Your task to perform on an android device: turn off location Image 0: 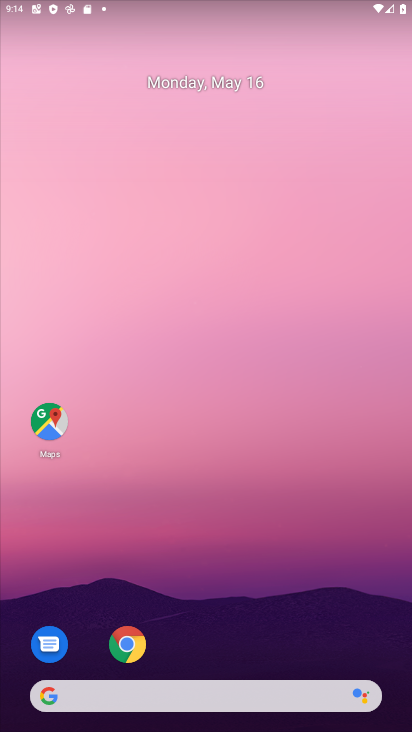
Step 0: drag from (308, 692) to (175, 724)
Your task to perform on an android device: turn off location Image 1: 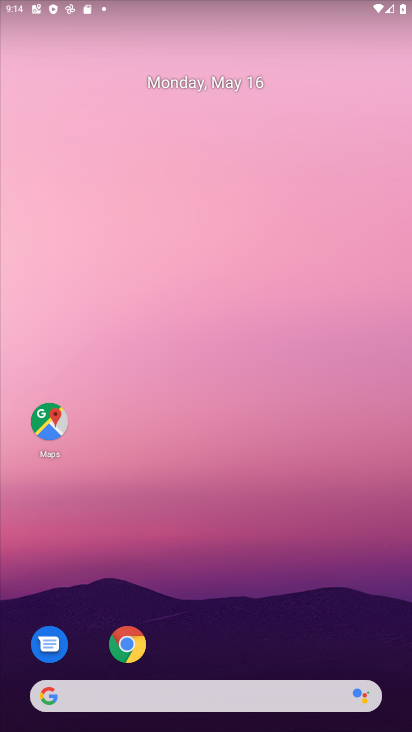
Step 1: drag from (299, 10) to (304, 577)
Your task to perform on an android device: turn off location Image 2: 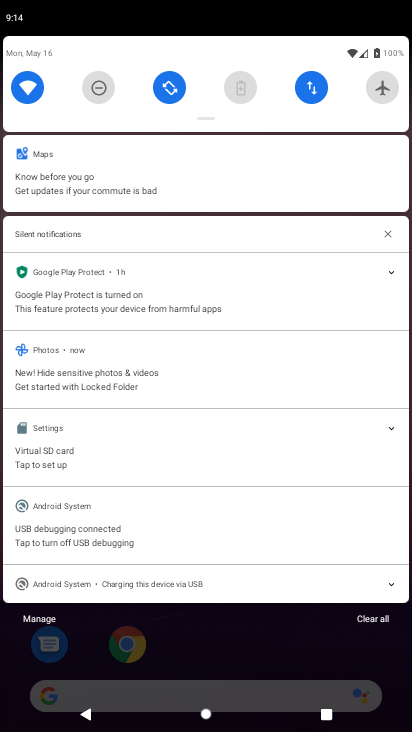
Step 2: press home button
Your task to perform on an android device: turn off location Image 3: 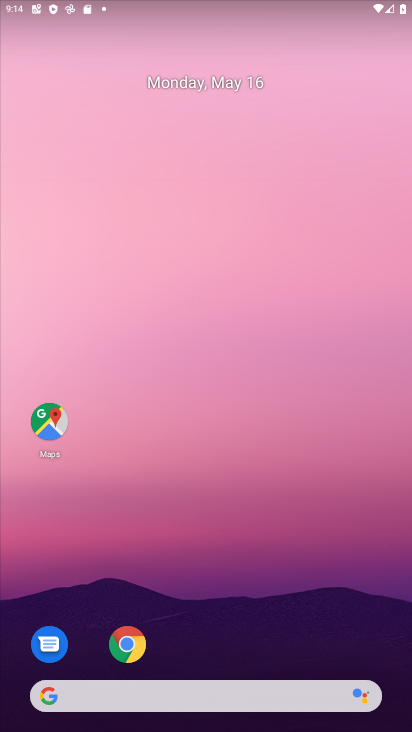
Step 3: drag from (242, 711) to (267, 5)
Your task to perform on an android device: turn off location Image 4: 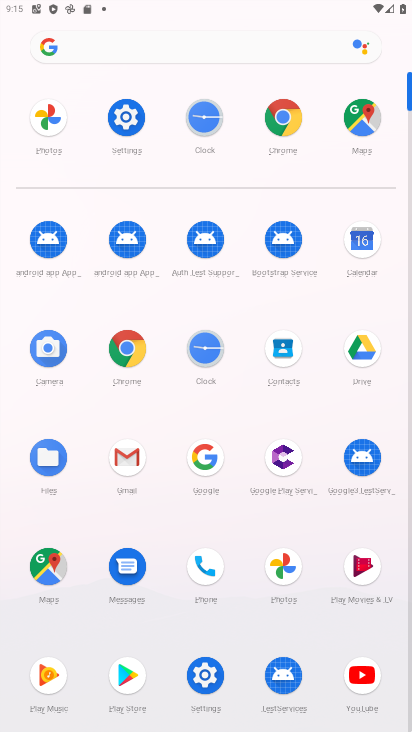
Step 4: click (120, 129)
Your task to perform on an android device: turn off location Image 5: 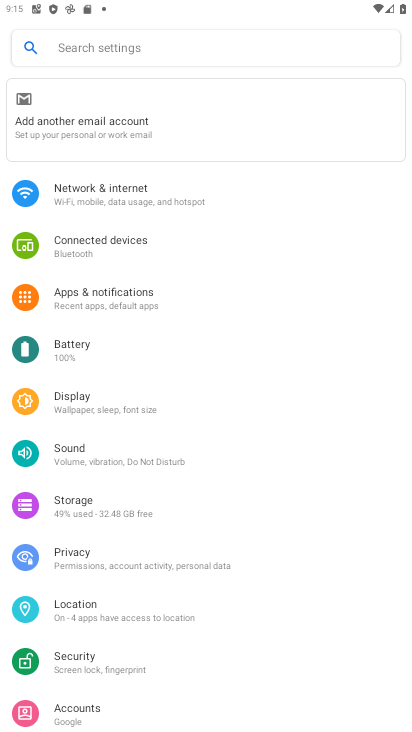
Step 5: click (197, 613)
Your task to perform on an android device: turn off location Image 6: 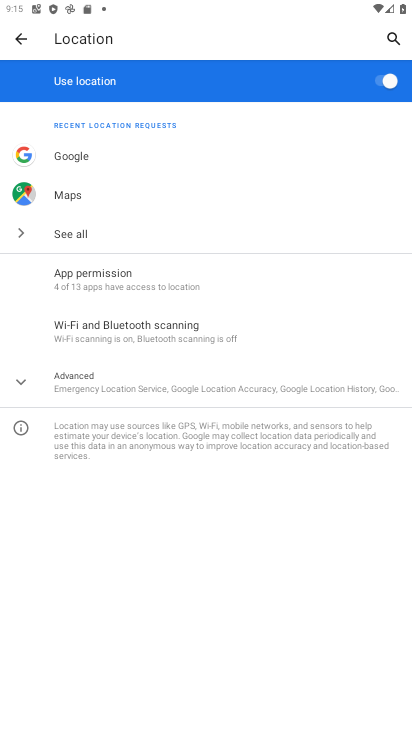
Step 6: click (388, 71)
Your task to perform on an android device: turn off location Image 7: 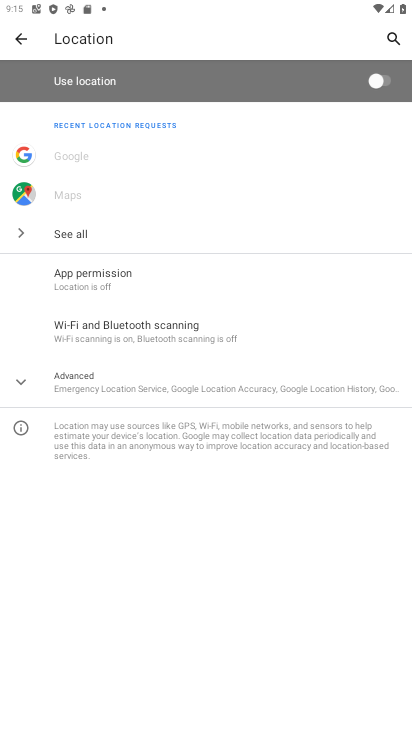
Step 7: task complete